Your task to perform on an android device: open app "Yahoo Mail" (install if not already installed) and enter user name: "lawsuit@inbox.com" and password: "pooch" Image 0: 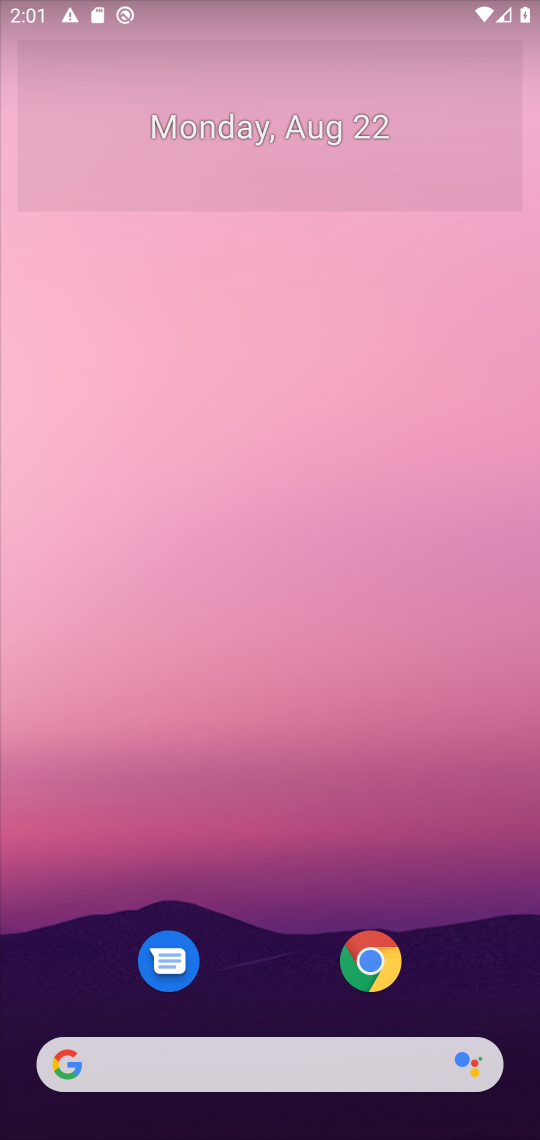
Step 0: press home button
Your task to perform on an android device: open app "Yahoo Mail" (install if not already installed) and enter user name: "lawsuit@inbox.com" and password: "pooch" Image 1: 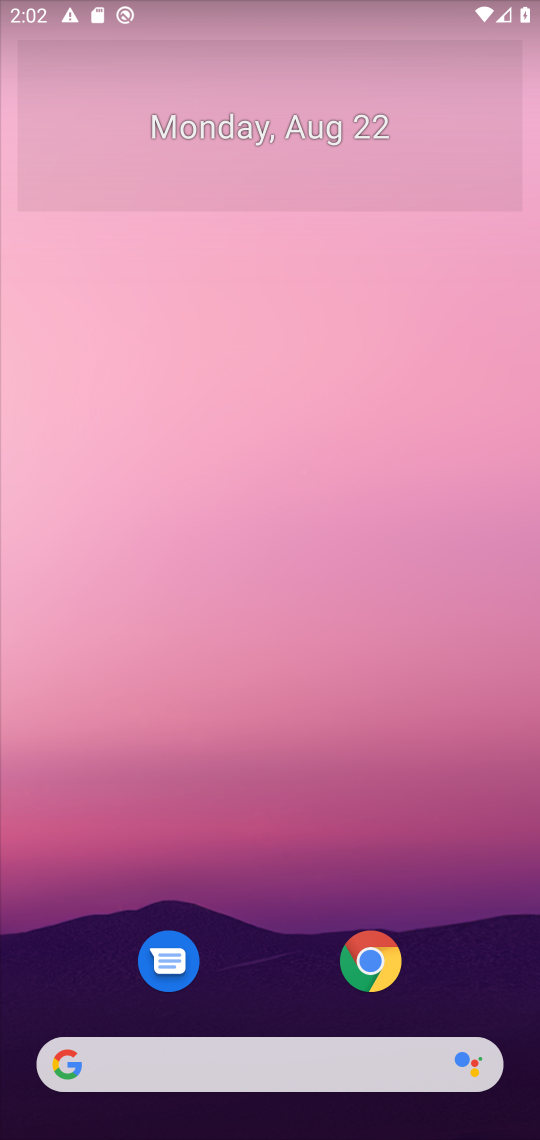
Step 1: drag from (473, 988) to (456, 90)
Your task to perform on an android device: open app "Yahoo Mail" (install if not already installed) and enter user name: "lawsuit@inbox.com" and password: "pooch" Image 2: 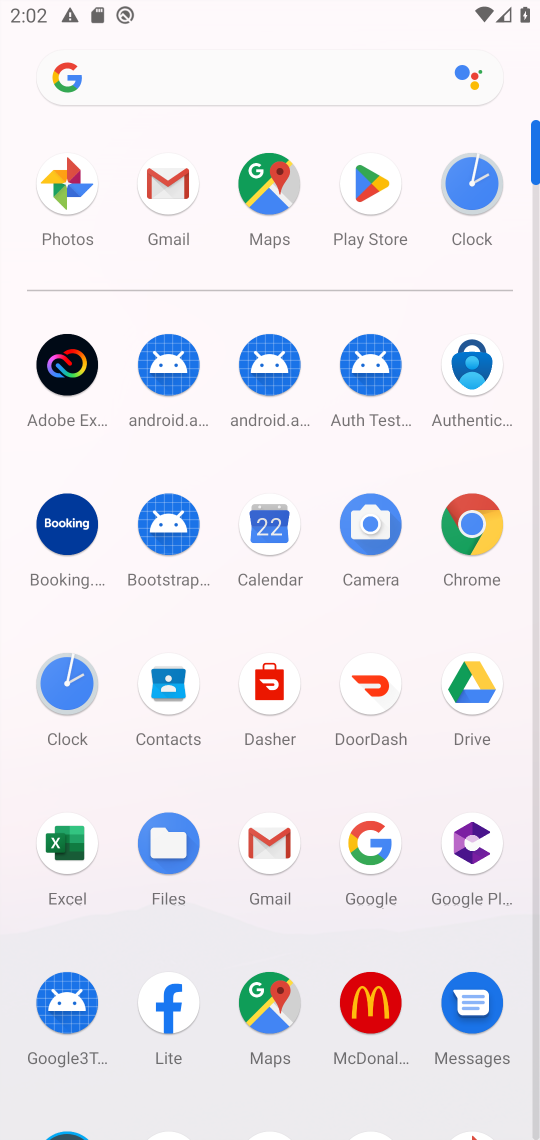
Step 2: click (363, 193)
Your task to perform on an android device: open app "Yahoo Mail" (install if not already installed) and enter user name: "lawsuit@inbox.com" and password: "pooch" Image 3: 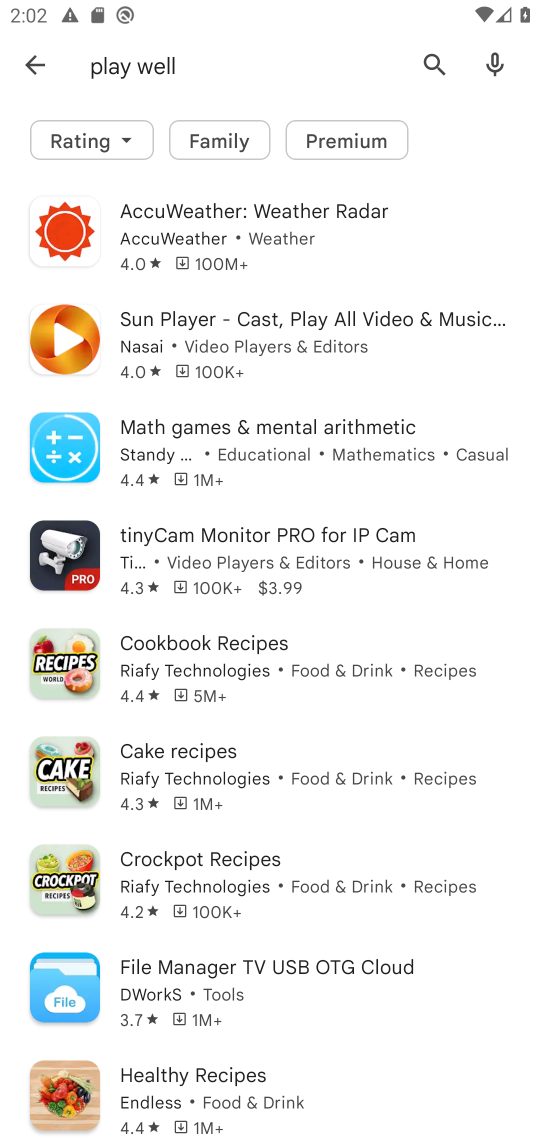
Step 3: press back button
Your task to perform on an android device: open app "Yahoo Mail" (install if not already installed) and enter user name: "lawsuit@inbox.com" and password: "pooch" Image 4: 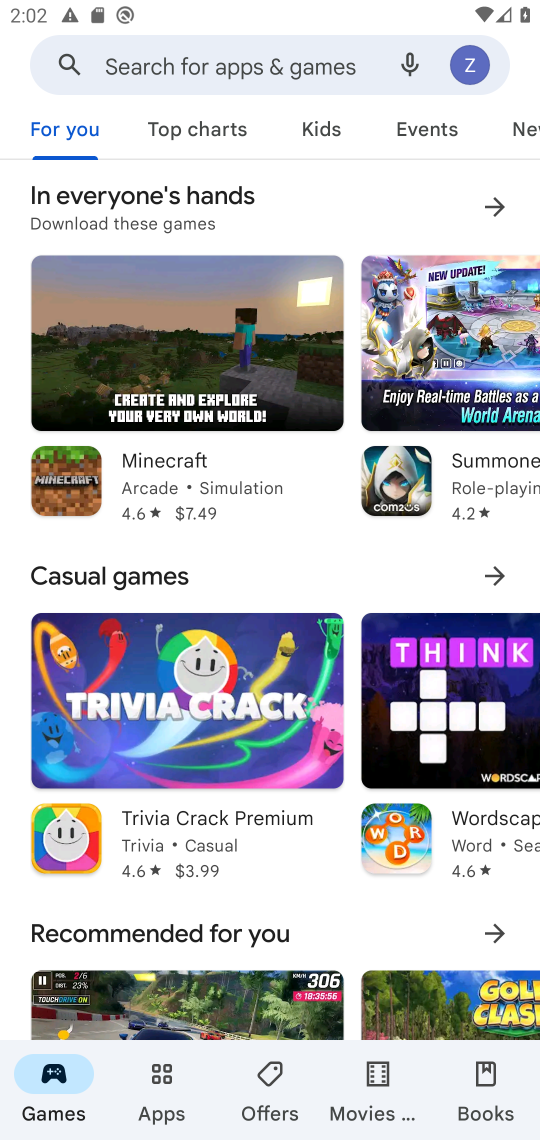
Step 4: click (238, 54)
Your task to perform on an android device: open app "Yahoo Mail" (install if not already installed) and enter user name: "lawsuit@inbox.com" and password: "pooch" Image 5: 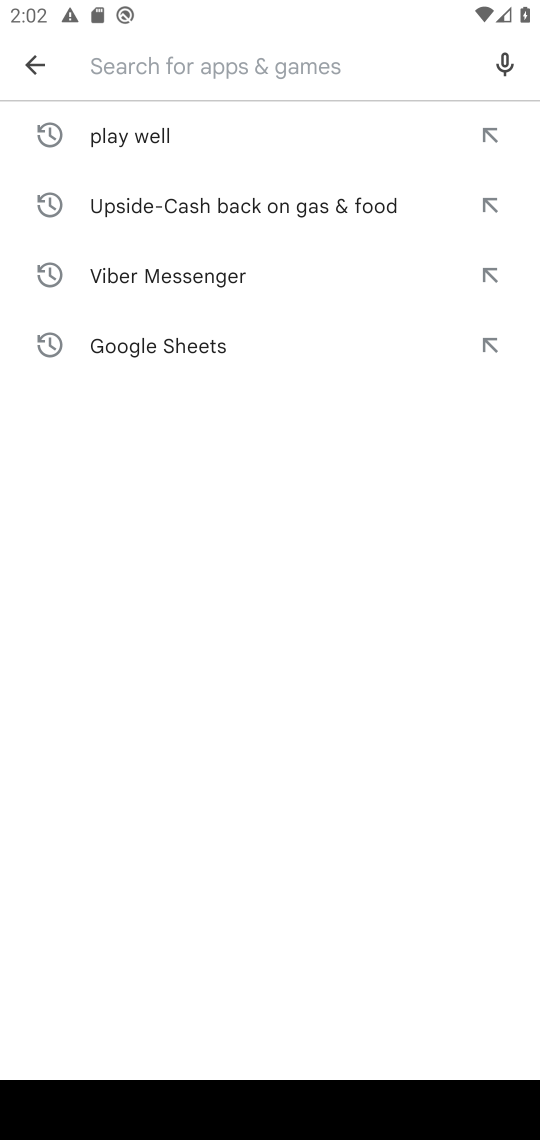
Step 5: type "Yahoo Mail"
Your task to perform on an android device: open app "Yahoo Mail" (install if not already installed) and enter user name: "lawsuit@inbox.com" and password: "pooch" Image 6: 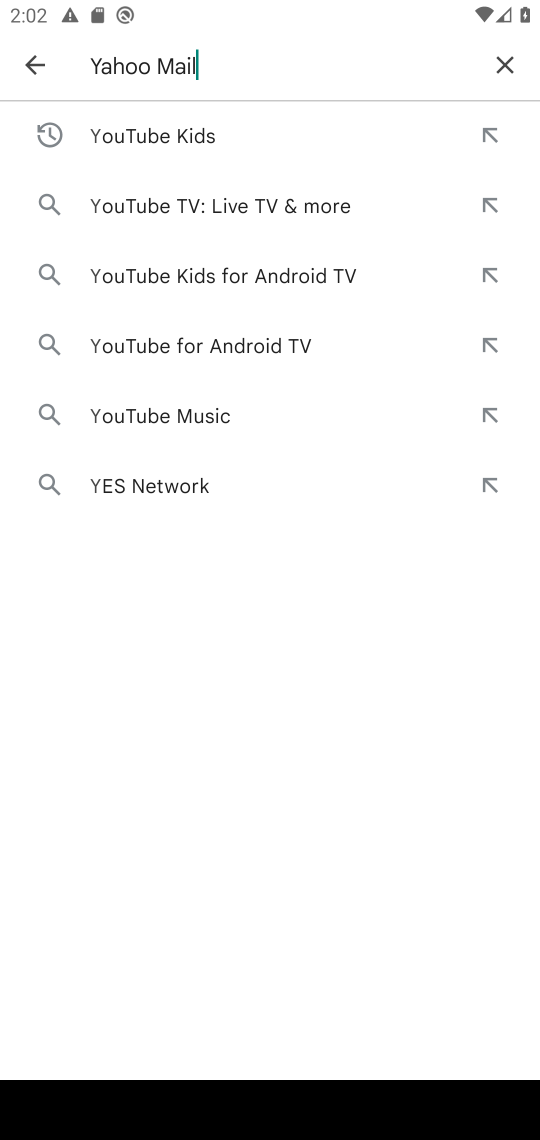
Step 6: press enter
Your task to perform on an android device: open app "Yahoo Mail" (install if not already installed) and enter user name: "lawsuit@inbox.com" and password: "pooch" Image 7: 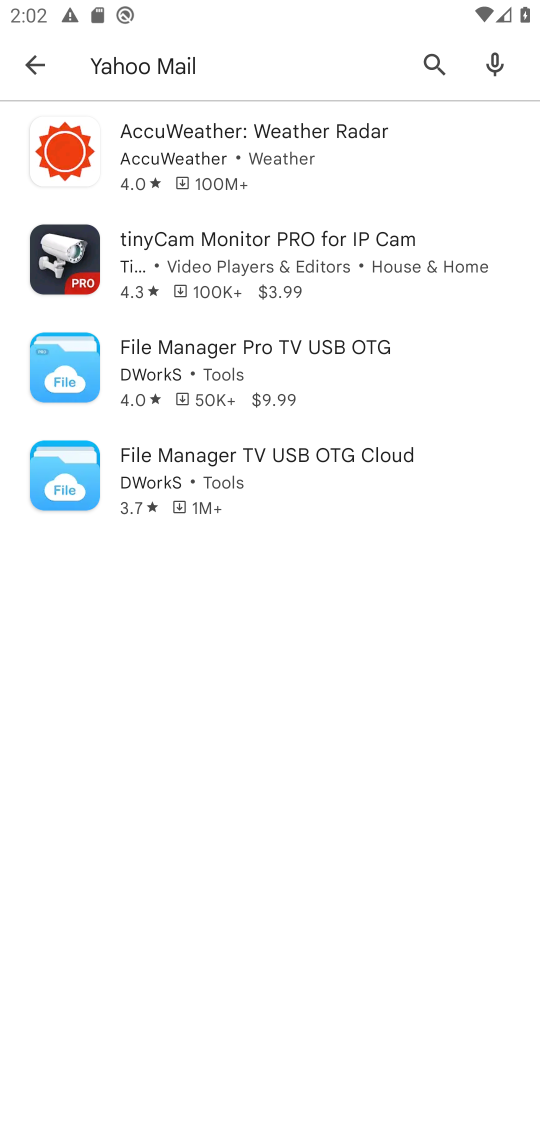
Step 7: task complete